Your task to perform on an android device: set the timer Image 0: 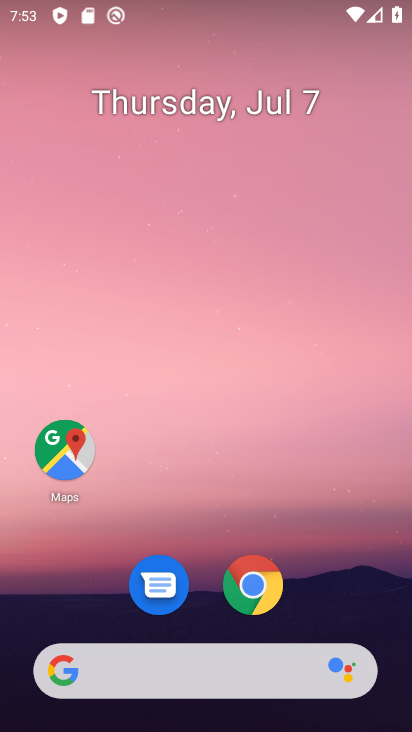
Step 0: drag from (333, 575) to (303, 38)
Your task to perform on an android device: set the timer Image 1: 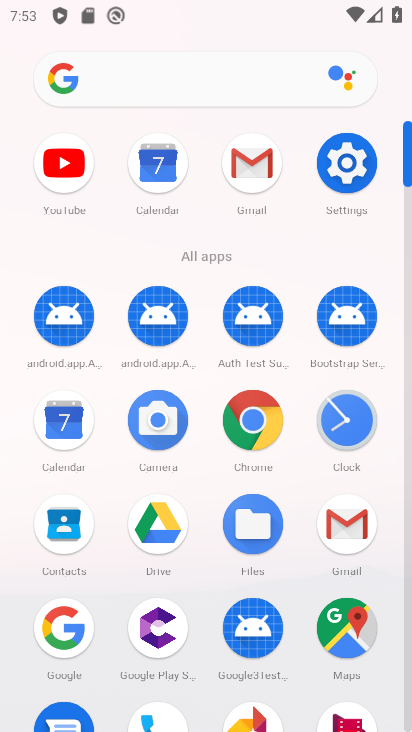
Step 1: click (353, 438)
Your task to perform on an android device: set the timer Image 2: 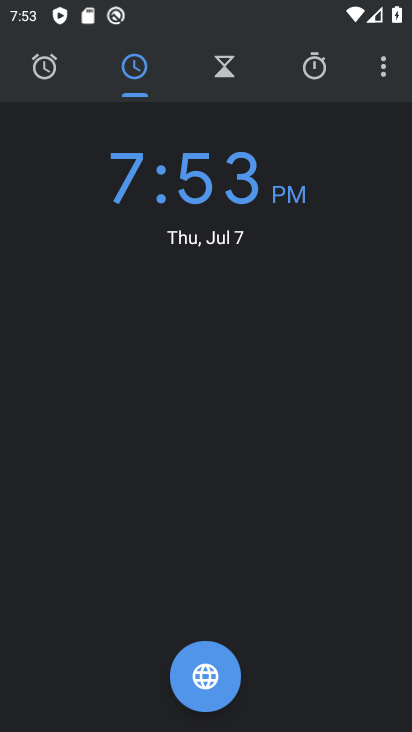
Step 2: click (228, 74)
Your task to perform on an android device: set the timer Image 3: 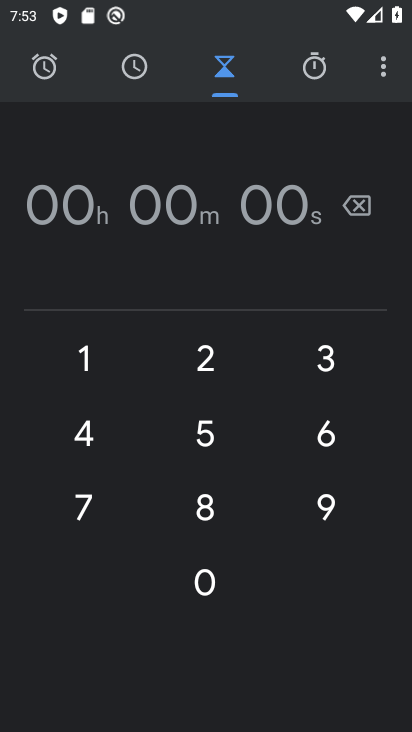
Step 3: click (87, 355)
Your task to perform on an android device: set the timer Image 4: 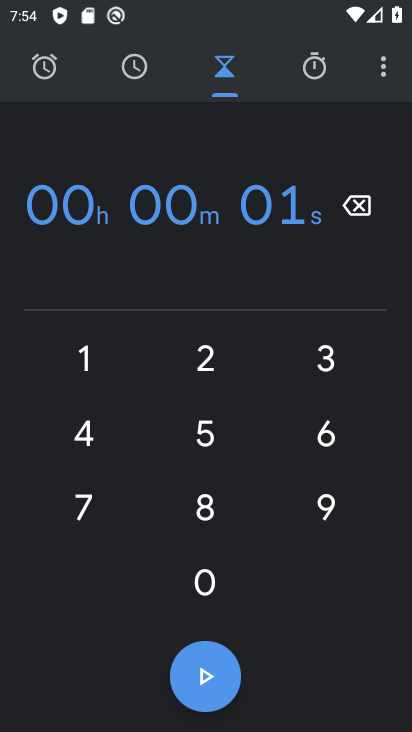
Step 4: click (81, 435)
Your task to perform on an android device: set the timer Image 5: 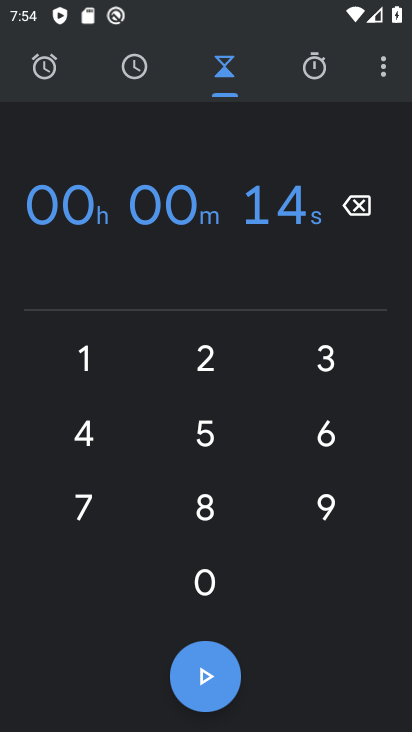
Step 5: task complete